Your task to perform on an android device: turn on showing notifications on the lock screen Image 0: 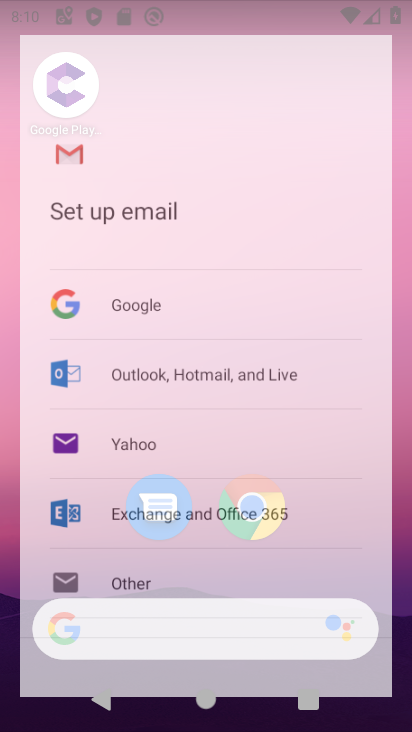
Step 0: drag from (208, 554) to (214, 267)
Your task to perform on an android device: turn on showing notifications on the lock screen Image 1: 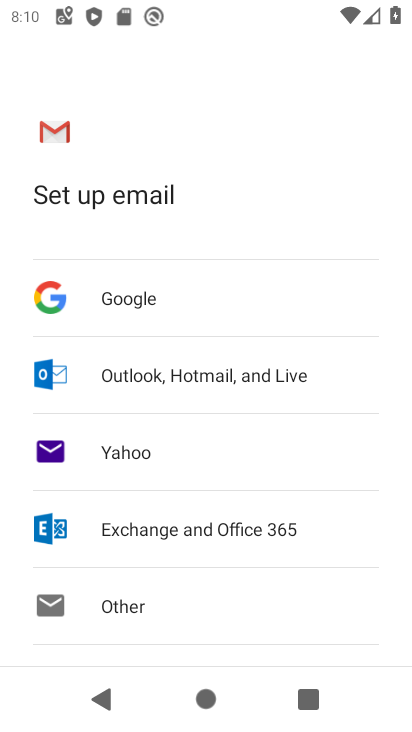
Step 1: press home button
Your task to perform on an android device: turn on showing notifications on the lock screen Image 2: 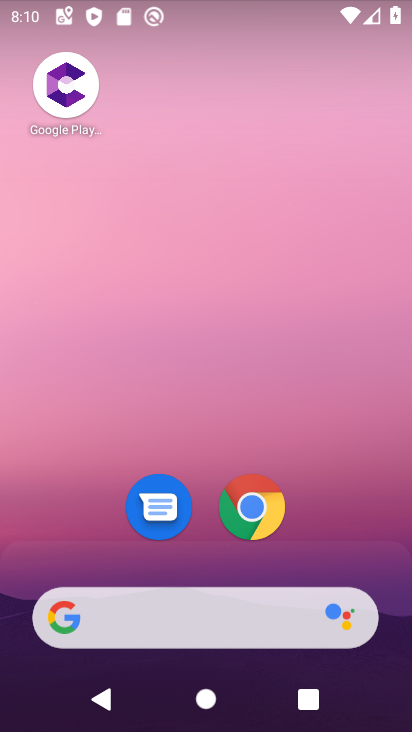
Step 2: drag from (203, 553) to (203, 403)
Your task to perform on an android device: turn on showing notifications on the lock screen Image 3: 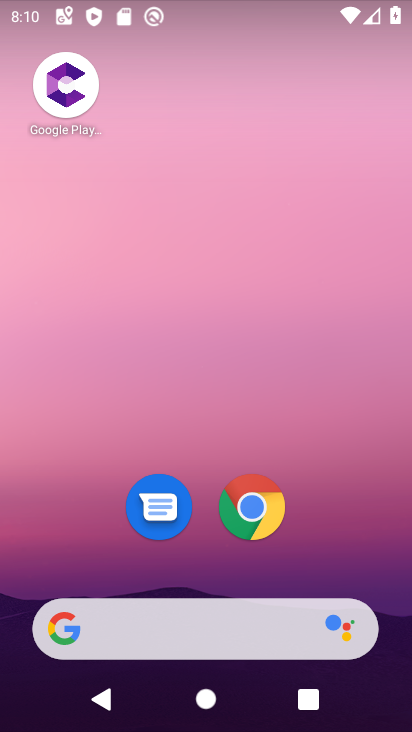
Step 3: drag from (211, 589) to (126, 19)
Your task to perform on an android device: turn on showing notifications on the lock screen Image 4: 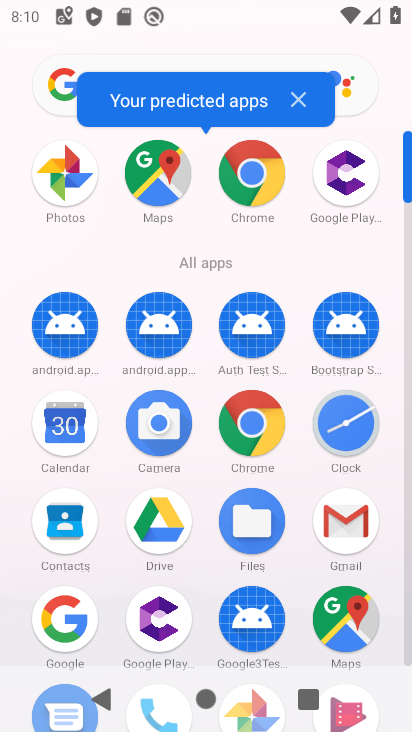
Step 4: drag from (184, 552) to (185, 0)
Your task to perform on an android device: turn on showing notifications on the lock screen Image 5: 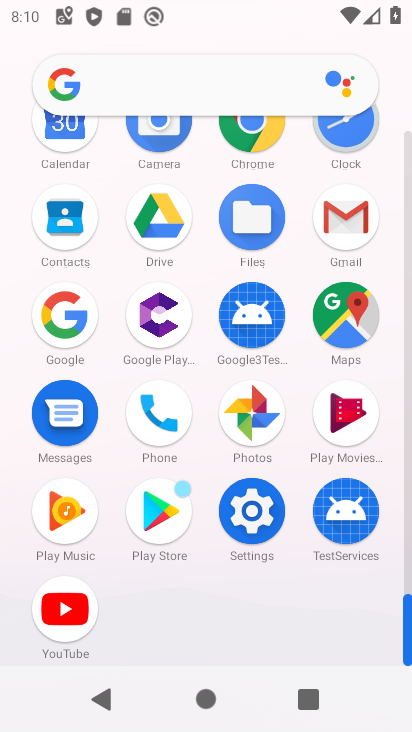
Step 5: click (260, 537)
Your task to perform on an android device: turn on showing notifications on the lock screen Image 6: 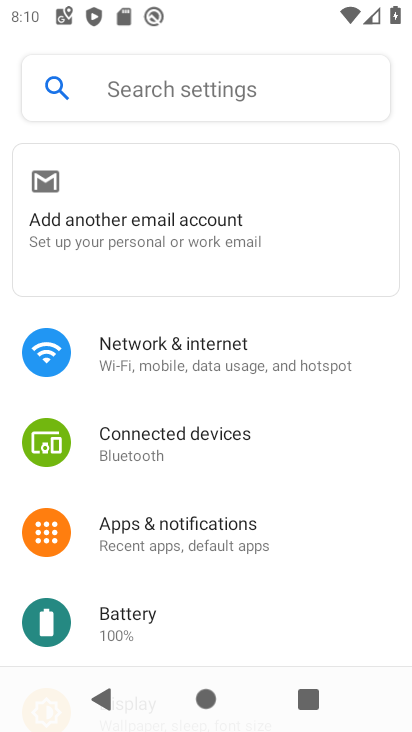
Step 6: click (184, 548)
Your task to perform on an android device: turn on showing notifications on the lock screen Image 7: 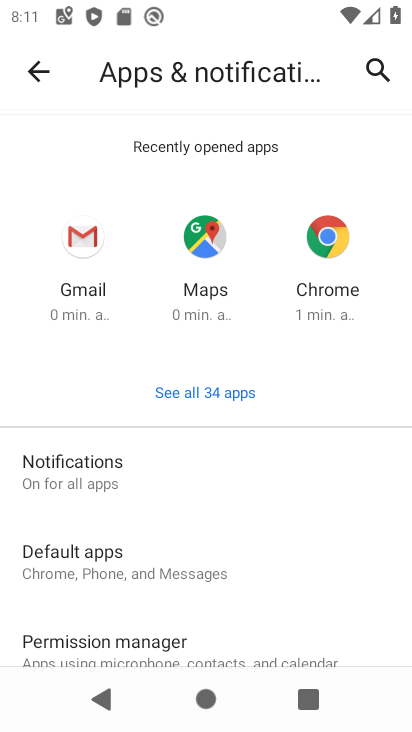
Step 7: click (111, 475)
Your task to perform on an android device: turn on showing notifications on the lock screen Image 8: 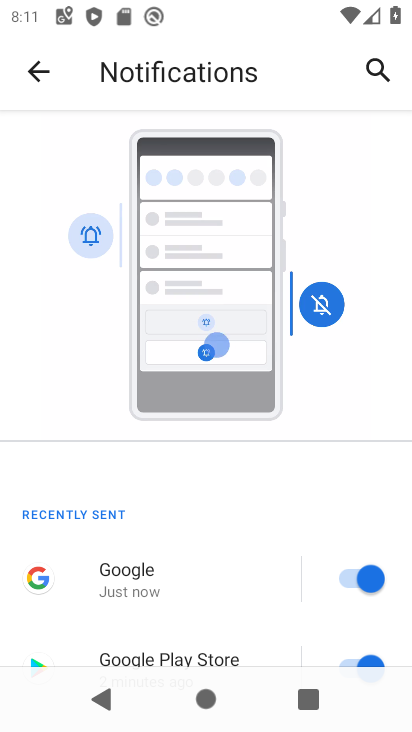
Step 8: drag from (104, 577) to (214, 232)
Your task to perform on an android device: turn on showing notifications on the lock screen Image 9: 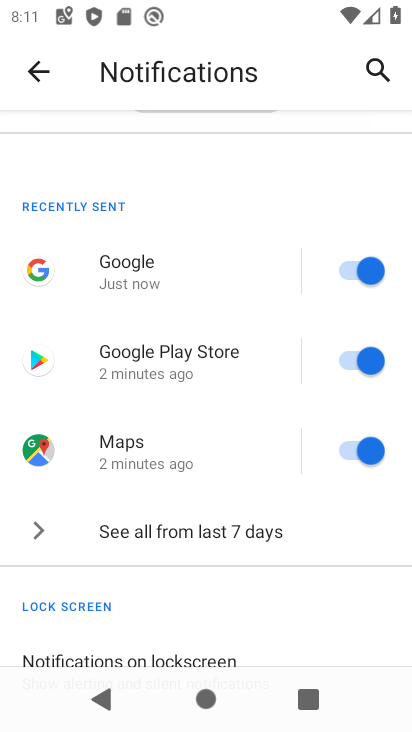
Step 9: drag from (173, 578) to (262, 129)
Your task to perform on an android device: turn on showing notifications on the lock screen Image 10: 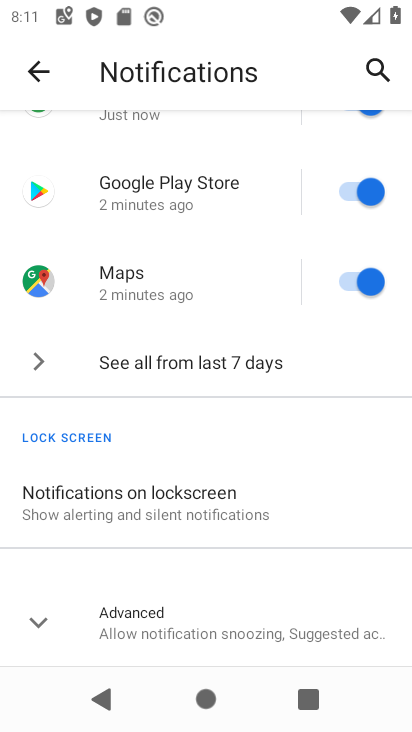
Step 10: drag from (200, 537) to (199, 501)
Your task to perform on an android device: turn on showing notifications on the lock screen Image 11: 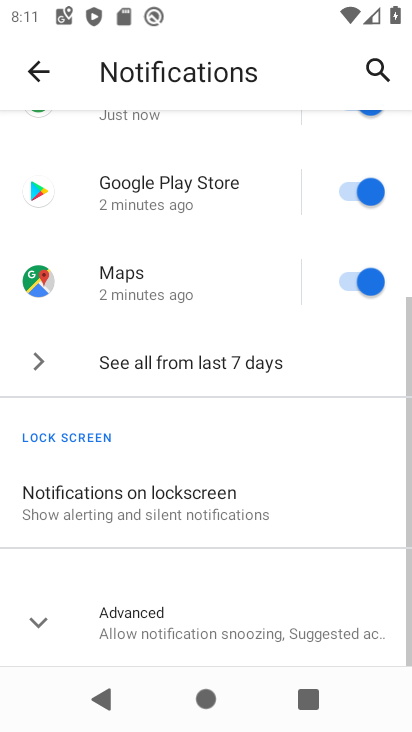
Step 11: click (198, 501)
Your task to perform on an android device: turn on showing notifications on the lock screen Image 12: 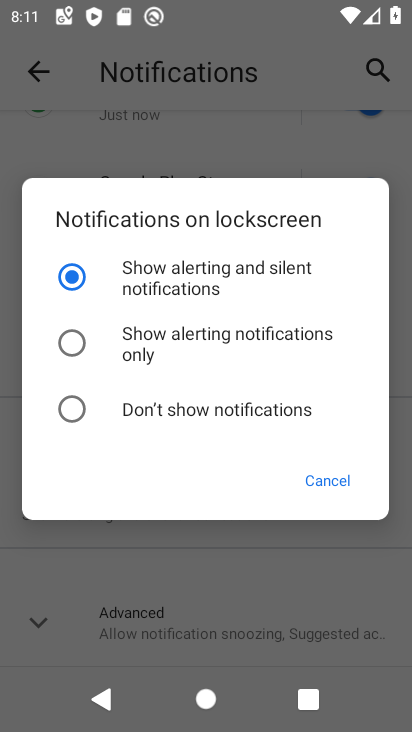
Step 12: task complete